Your task to perform on an android device: turn off sleep mode Image 0: 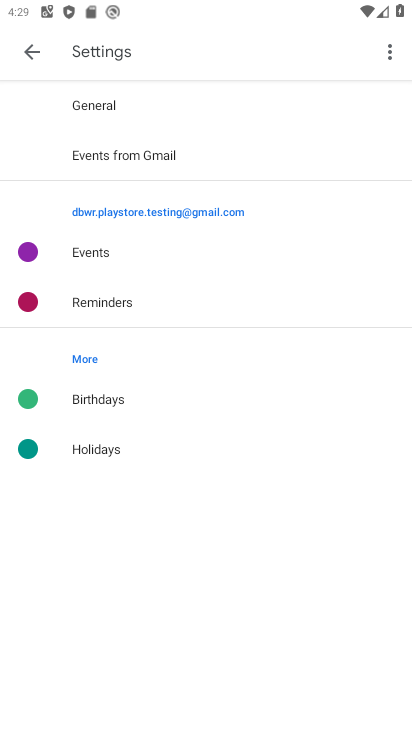
Step 0: press back button
Your task to perform on an android device: turn off sleep mode Image 1: 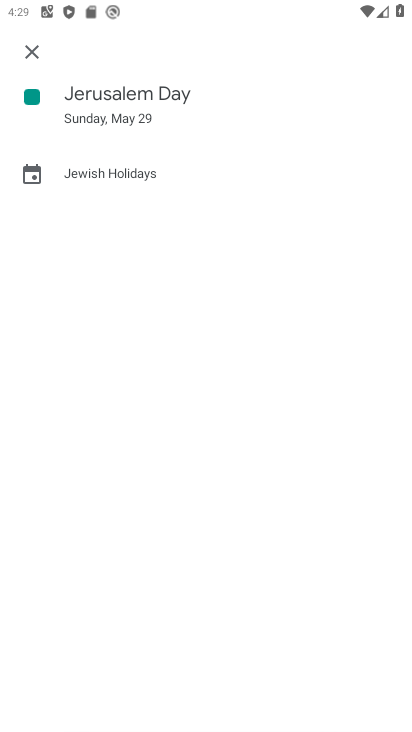
Step 1: press back button
Your task to perform on an android device: turn off sleep mode Image 2: 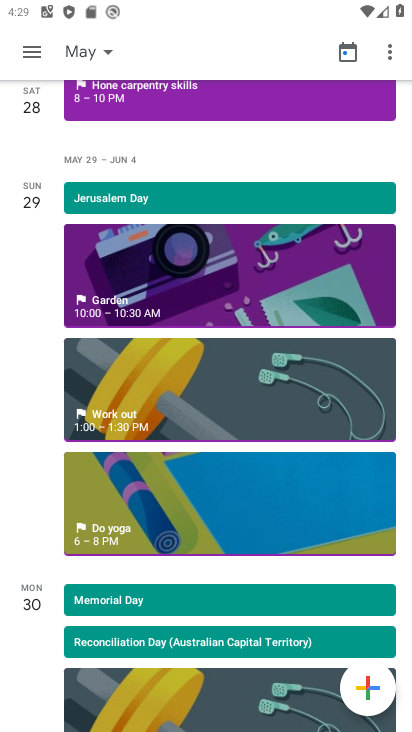
Step 2: press back button
Your task to perform on an android device: turn off sleep mode Image 3: 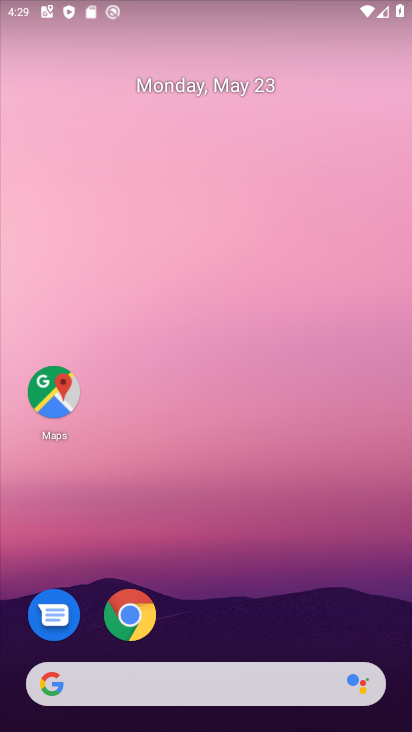
Step 3: drag from (228, 564) to (275, 41)
Your task to perform on an android device: turn off sleep mode Image 4: 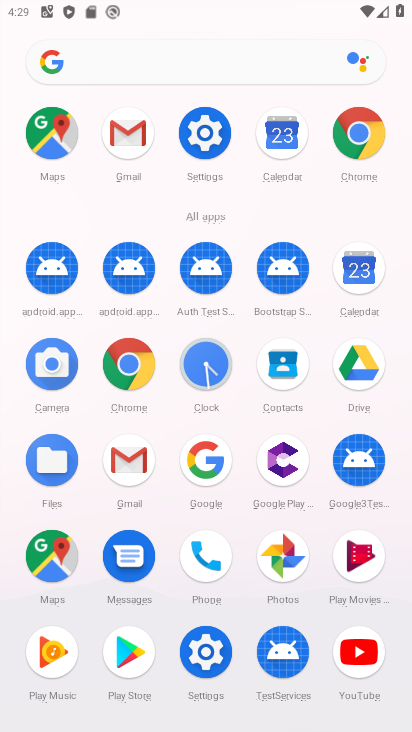
Step 4: click (206, 151)
Your task to perform on an android device: turn off sleep mode Image 5: 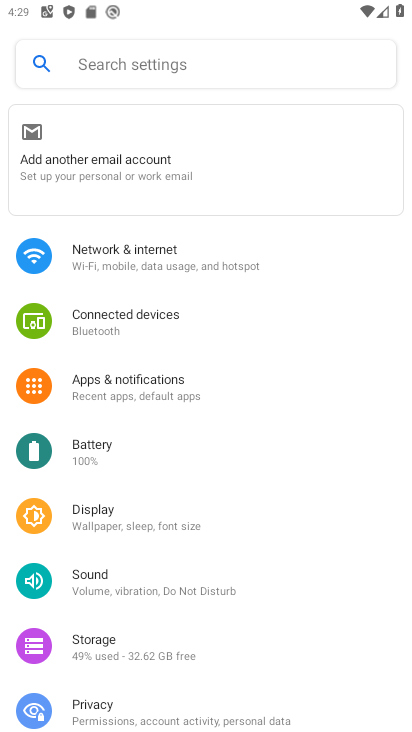
Step 5: click (124, 65)
Your task to perform on an android device: turn off sleep mode Image 6: 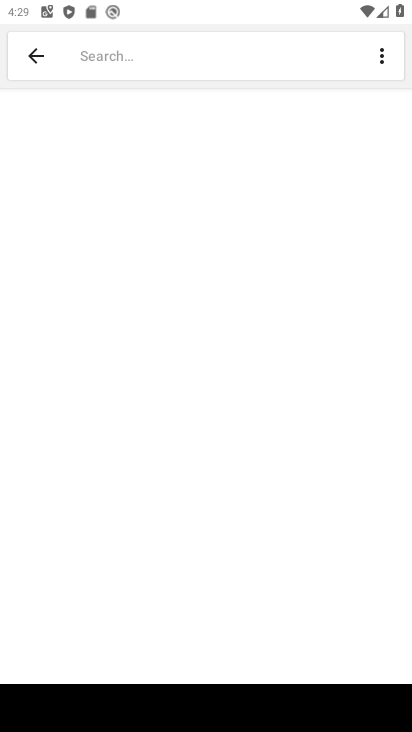
Step 6: type "sleep mode"
Your task to perform on an android device: turn off sleep mode Image 7: 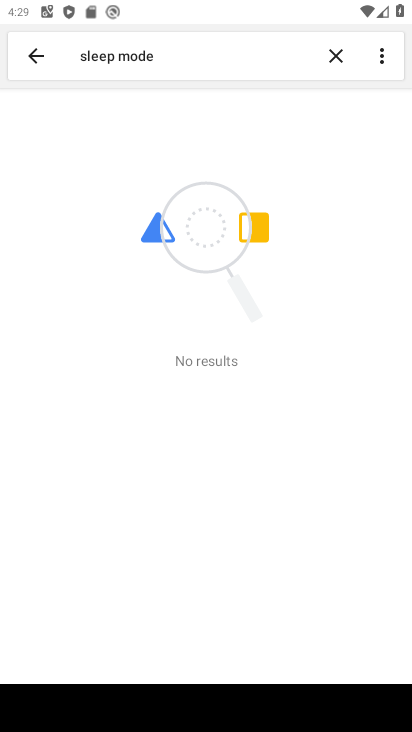
Step 7: task complete